Your task to perform on an android device: check data usage Image 0: 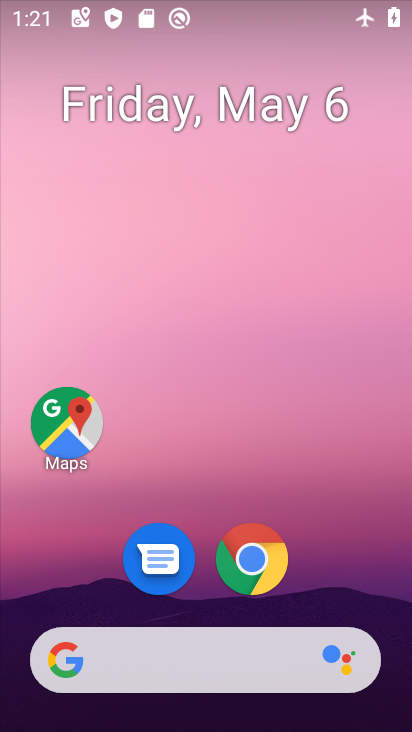
Step 0: drag from (168, 666) to (306, 12)
Your task to perform on an android device: check data usage Image 1: 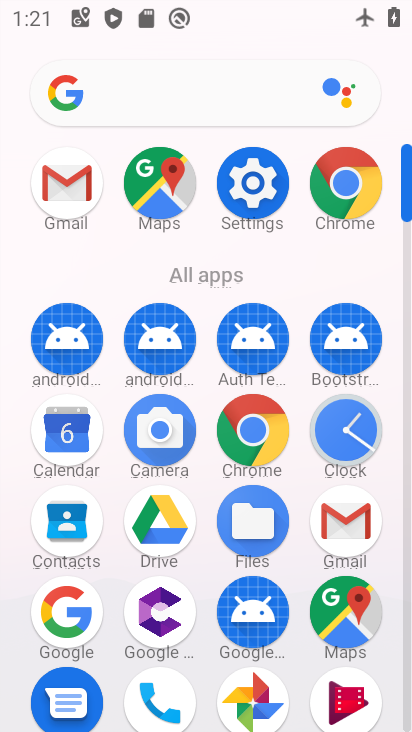
Step 1: click (263, 169)
Your task to perform on an android device: check data usage Image 2: 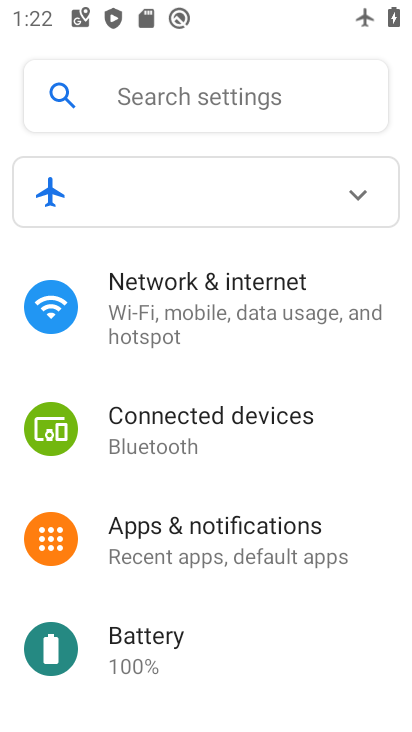
Step 2: drag from (230, 640) to (330, 192)
Your task to perform on an android device: check data usage Image 3: 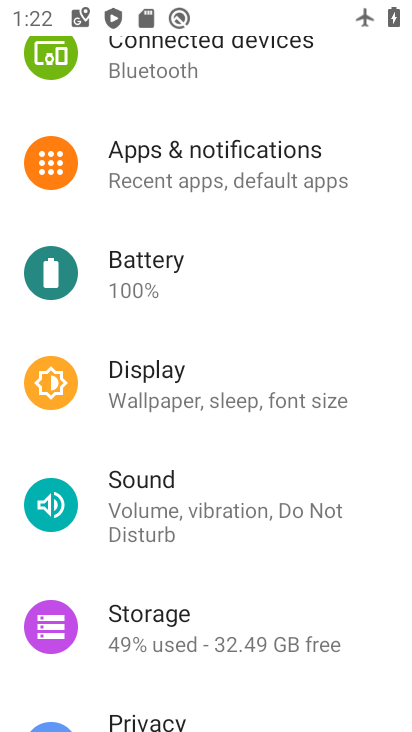
Step 3: drag from (259, 428) to (202, 620)
Your task to perform on an android device: check data usage Image 4: 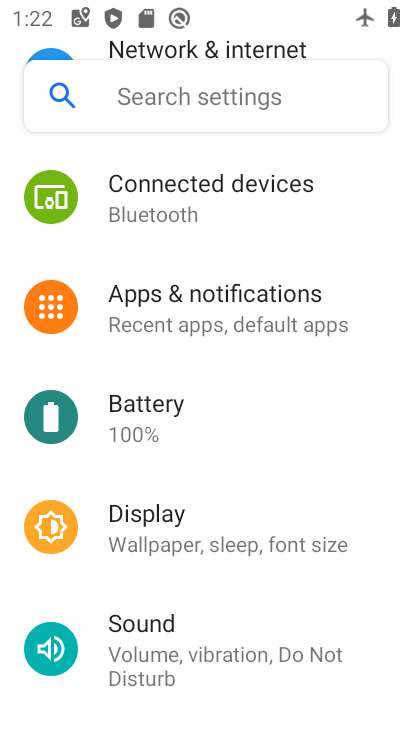
Step 4: drag from (259, 273) to (171, 645)
Your task to perform on an android device: check data usage Image 5: 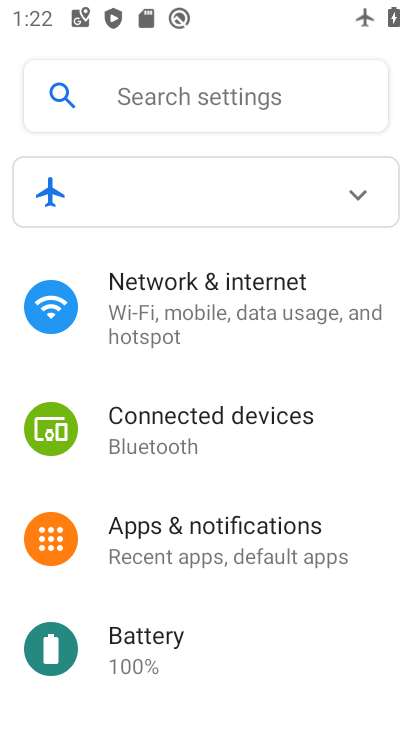
Step 5: click (223, 297)
Your task to perform on an android device: check data usage Image 6: 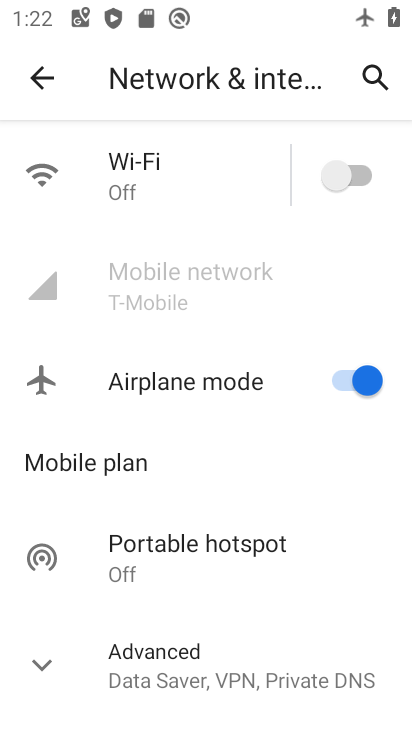
Step 6: click (139, 191)
Your task to perform on an android device: check data usage Image 7: 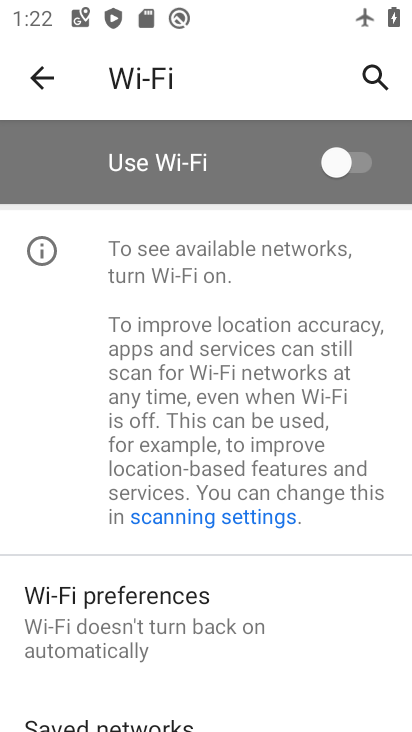
Step 7: drag from (147, 672) to (325, 94)
Your task to perform on an android device: check data usage Image 8: 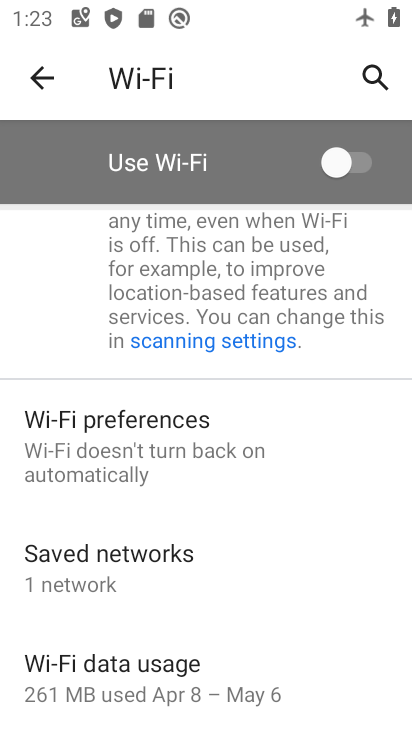
Step 8: click (147, 674)
Your task to perform on an android device: check data usage Image 9: 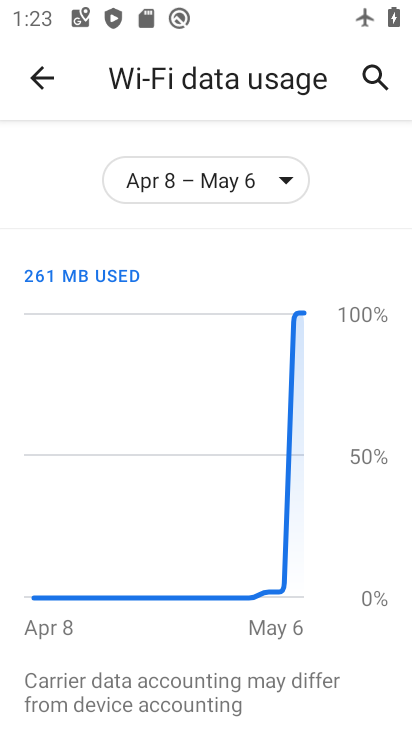
Step 9: task complete